Your task to perform on an android device: change the clock style Image 0: 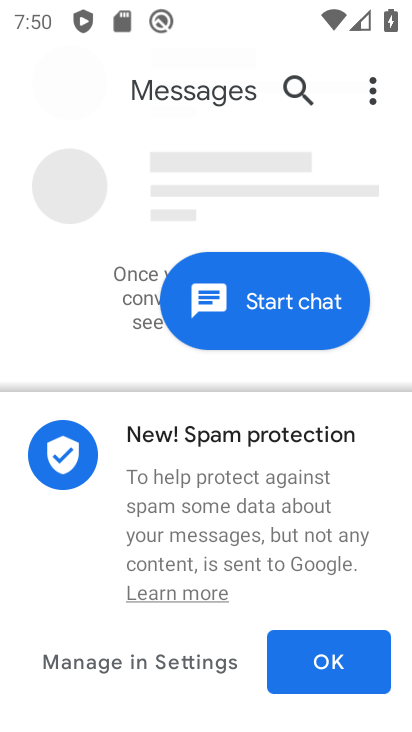
Step 0: press home button
Your task to perform on an android device: change the clock style Image 1: 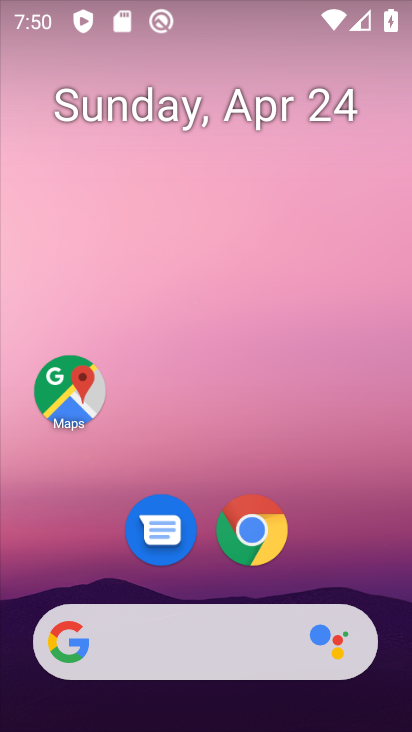
Step 1: drag from (195, 515) to (205, 98)
Your task to perform on an android device: change the clock style Image 2: 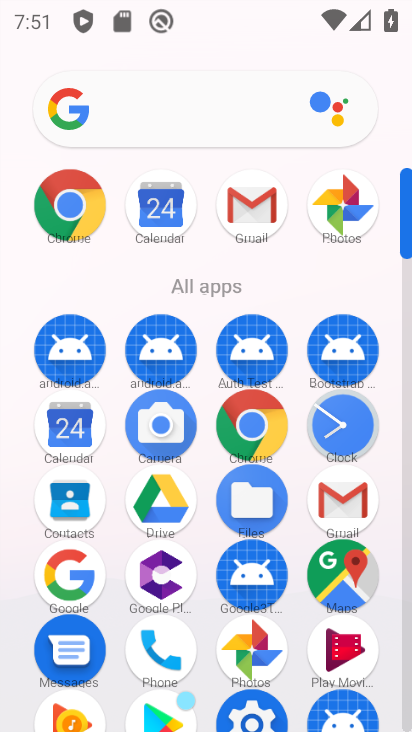
Step 2: click (342, 404)
Your task to perform on an android device: change the clock style Image 3: 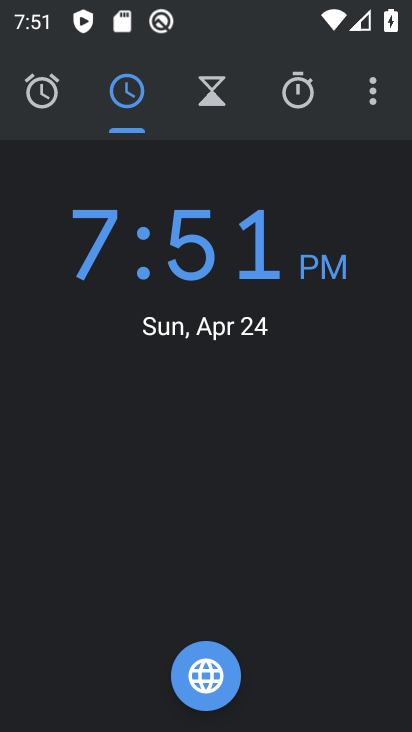
Step 3: click (381, 105)
Your task to perform on an android device: change the clock style Image 4: 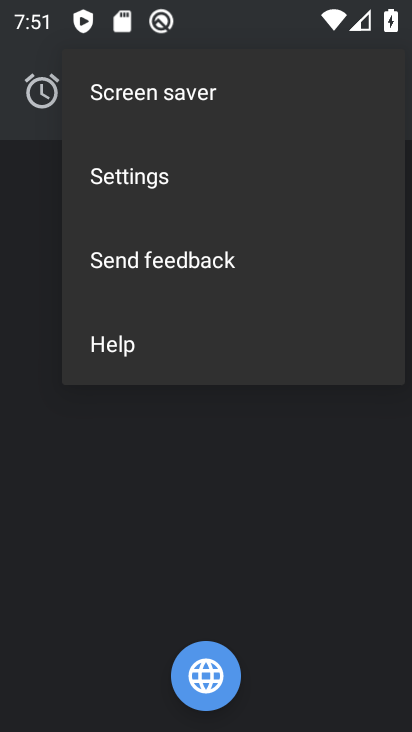
Step 4: click (212, 194)
Your task to perform on an android device: change the clock style Image 5: 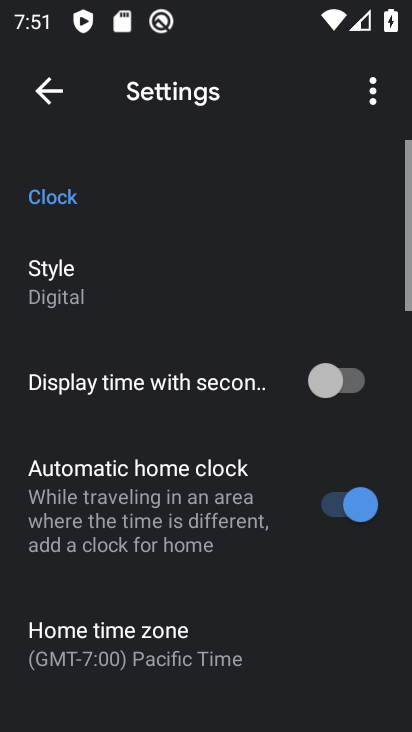
Step 5: click (155, 297)
Your task to perform on an android device: change the clock style Image 6: 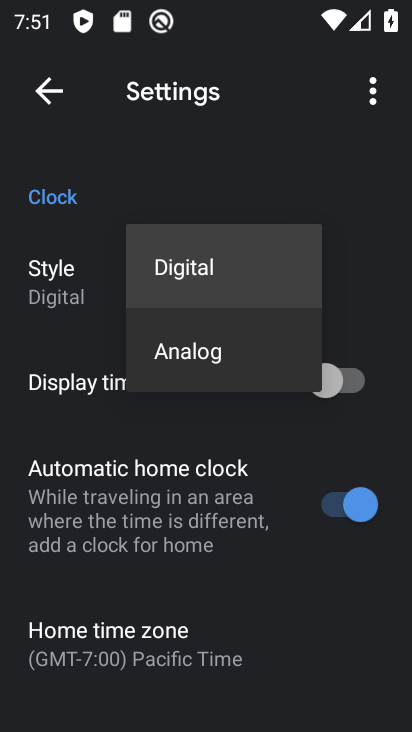
Step 6: click (209, 346)
Your task to perform on an android device: change the clock style Image 7: 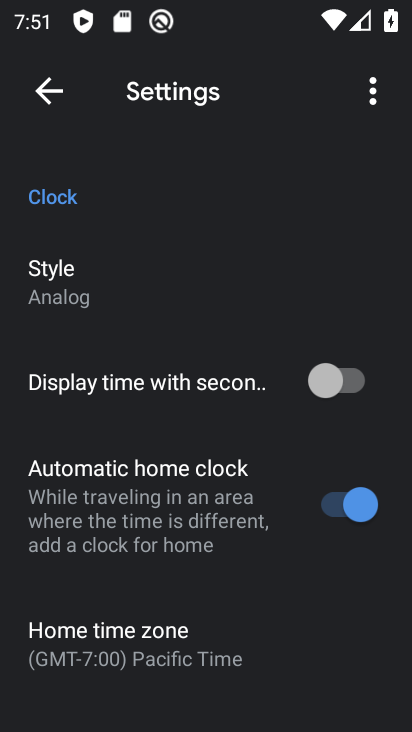
Step 7: task complete